Your task to perform on an android device: open app "Pandora - Music & Podcasts" Image 0: 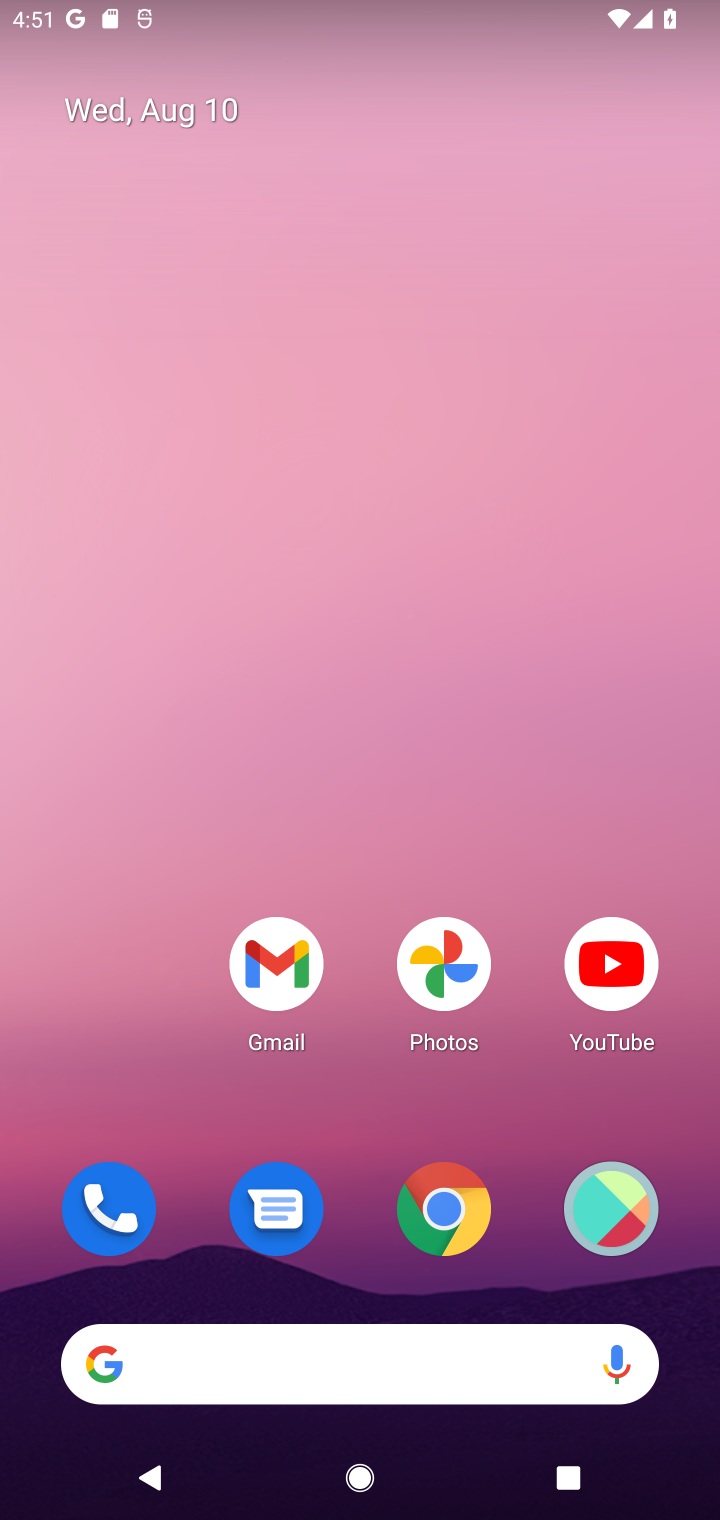
Step 0: drag from (328, 1304) to (404, 183)
Your task to perform on an android device: open app "Pandora - Music & Podcasts" Image 1: 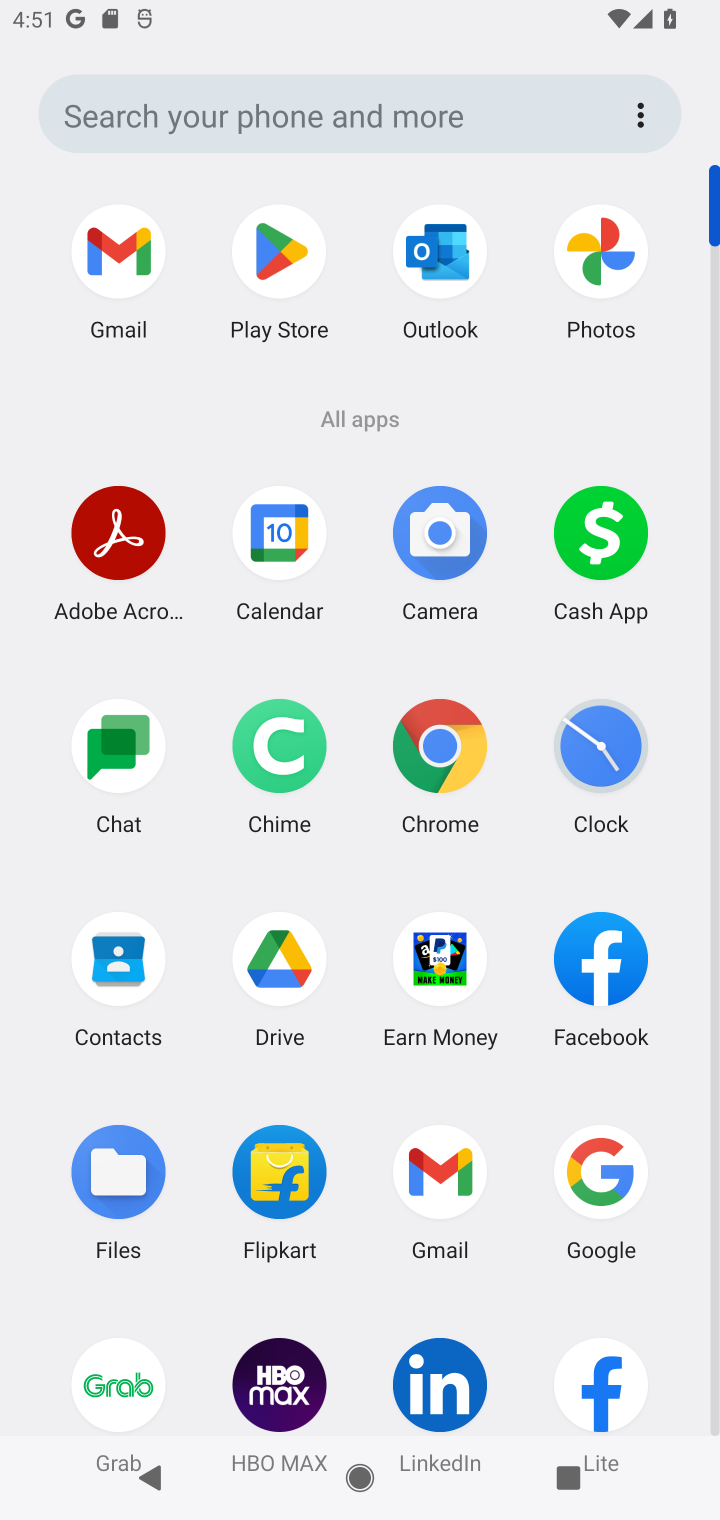
Step 1: click (336, 1216)
Your task to perform on an android device: open app "Pandora - Music & Podcasts" Image 2: 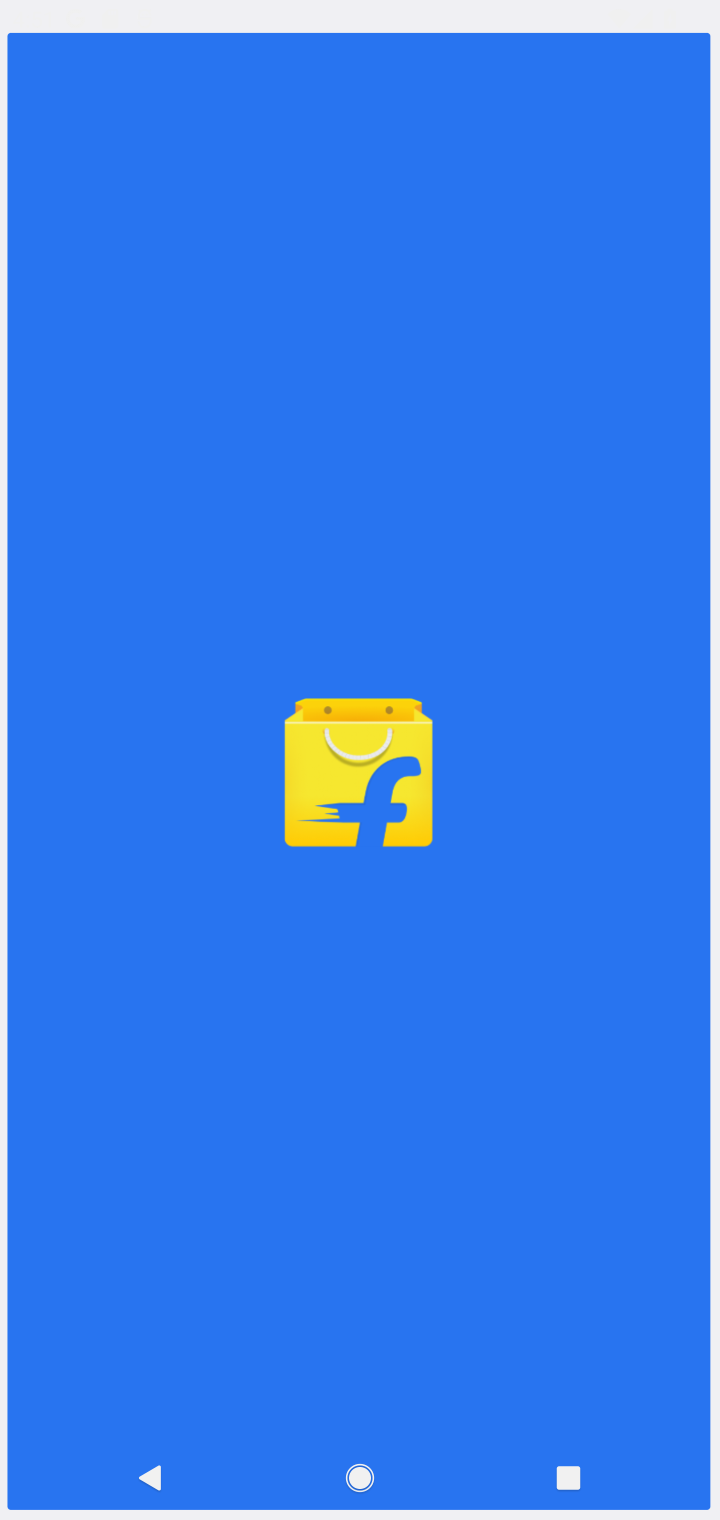
Step 2: task complete